Your task to perform on an android device: turn off sleep mode Image 0: 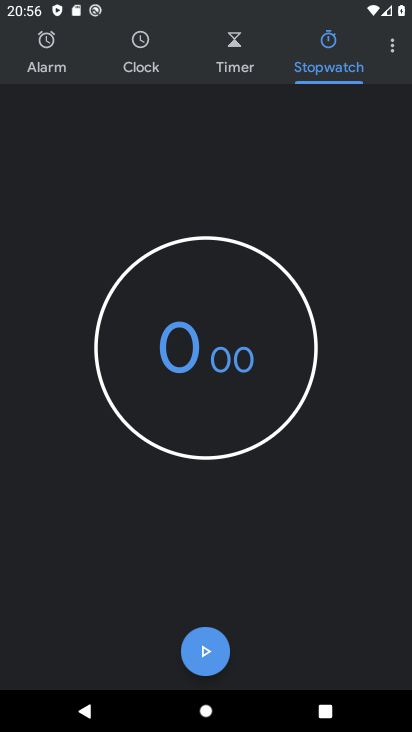
Step 0: press home button
Your task to perform on an android device: turn off sleep mode Image 1: 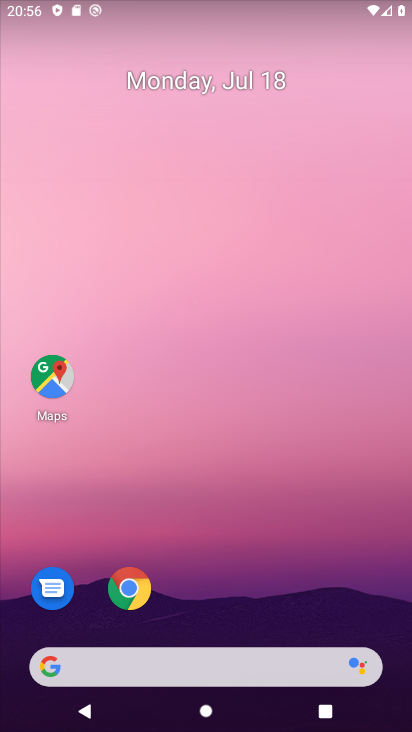
Step 1: drag from (137, 669) to (253, 47)
Your task to perform on an android device: turn off sleep mode Image 2: 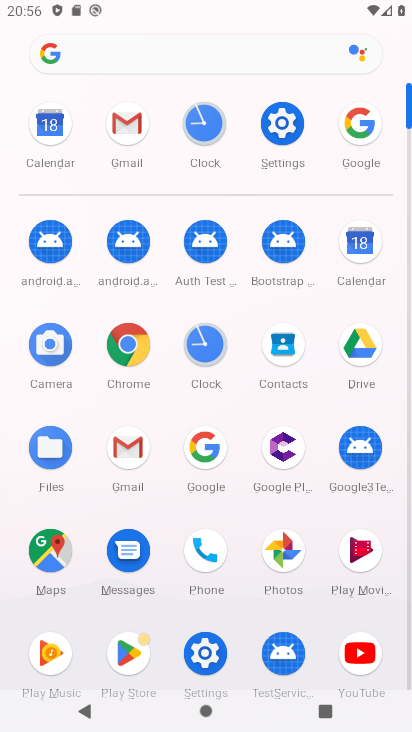
Step 2: click (283, 117)
Your task to perform on an android device: turn off sleep mode Image 3: 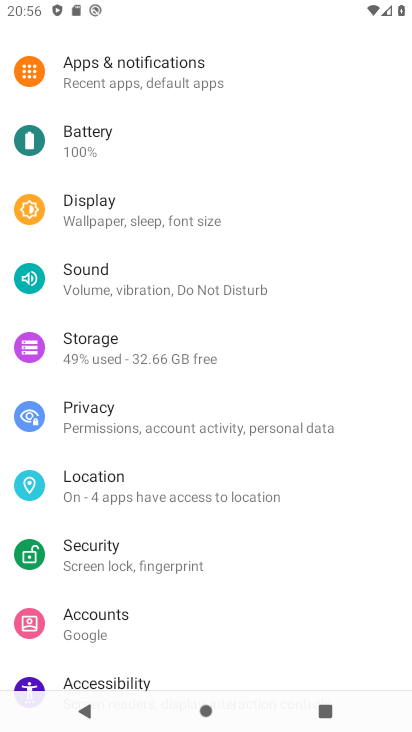
Step 3: click (163, 224)
Your task to perform on an android device: turn off sleep mode Image 4: 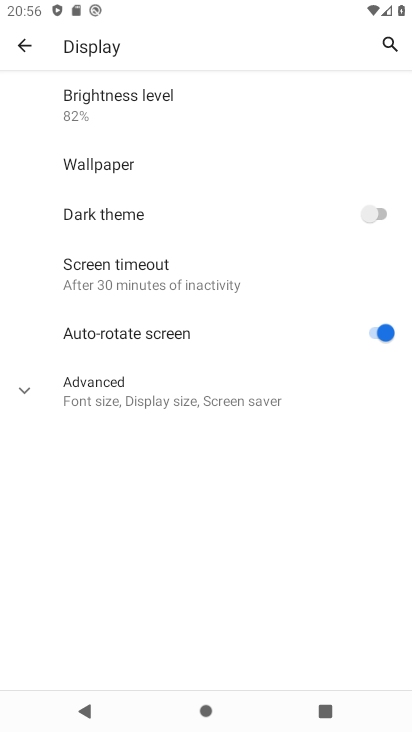
Step 4: task complete